Your task to perform on an android device: Empty the shopping cart on costco. Image 0: 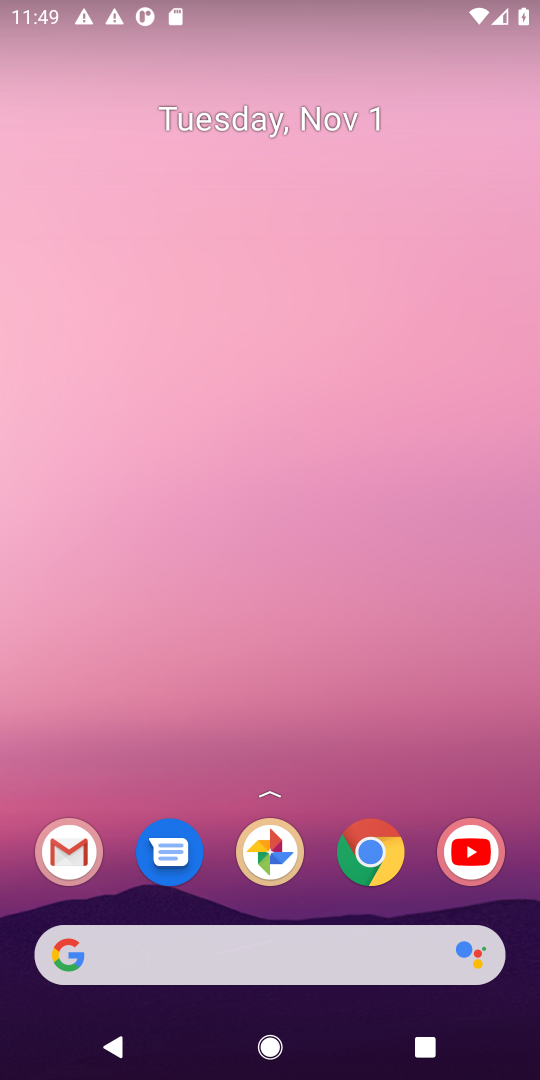
Step 0: click (73, 941)
Your task to perform on an android device: Empty the shopping cart on costco. Image 1: 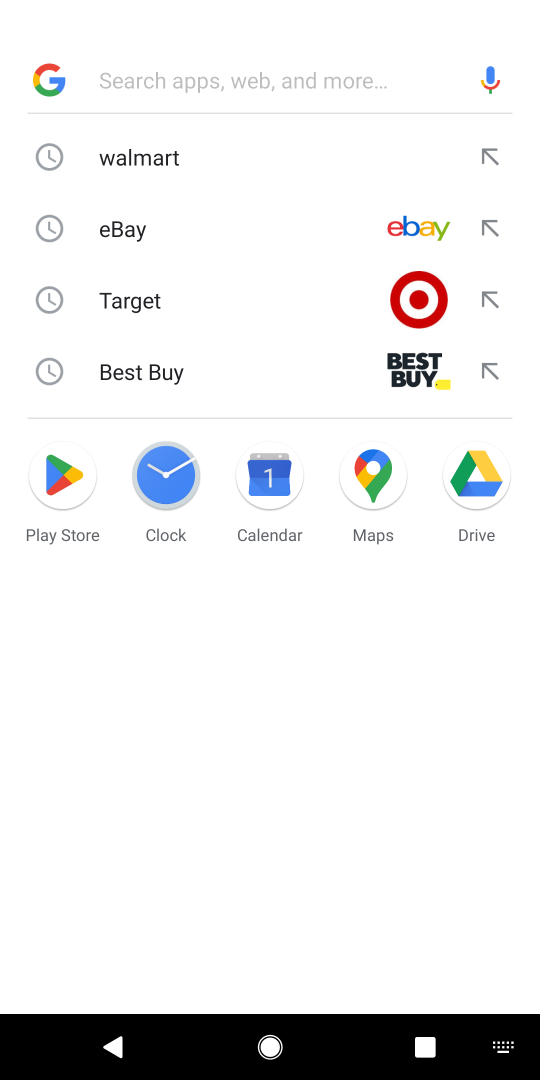
Step 1: type "costco."
Your task to perform on an android device: Empty the shopping cart on costco. Image 2: 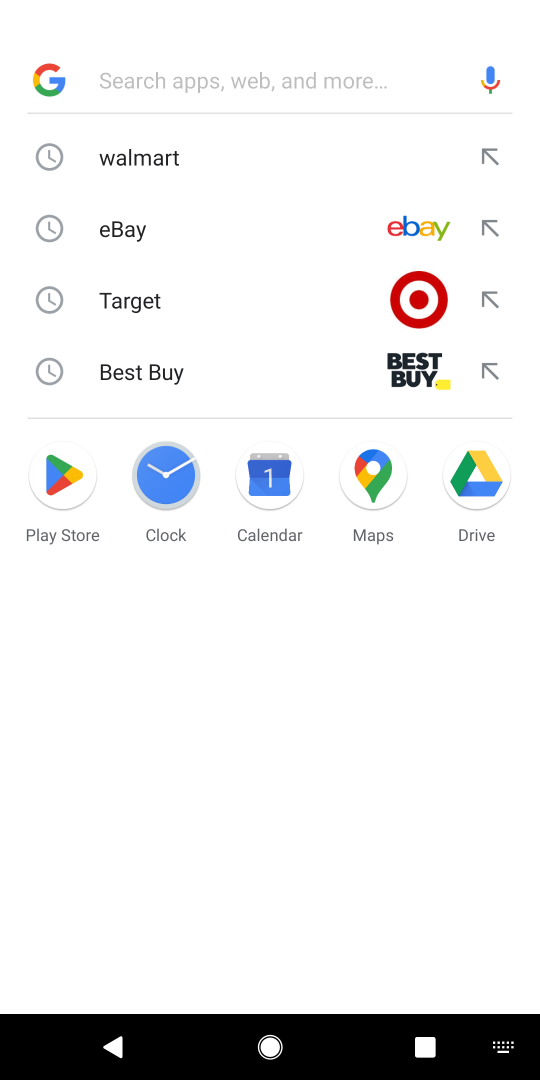
Step 2: click (124, 76)
Your task to perform on an android device: Empty the shopping cart on costco. Image 3: 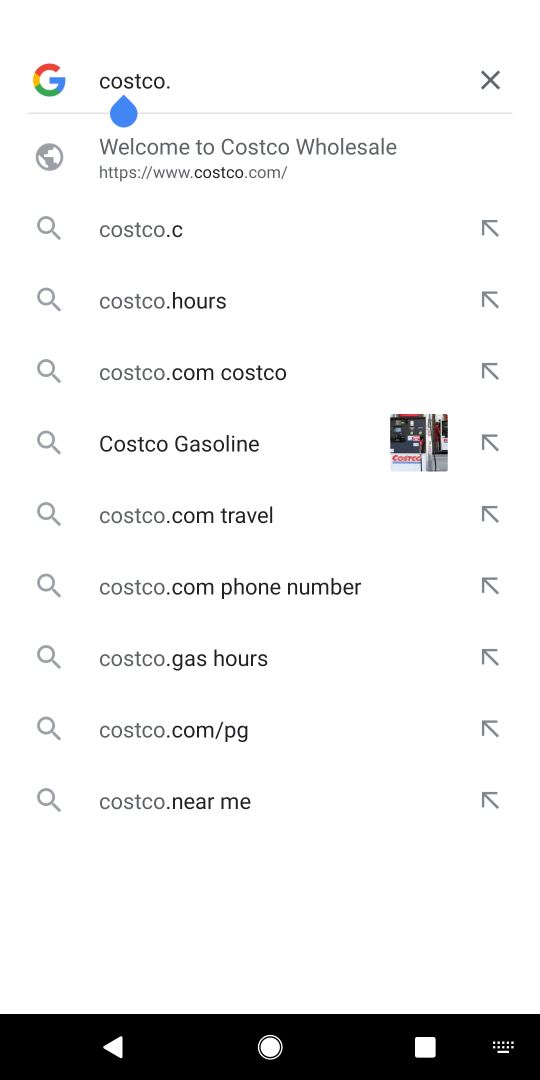
Step 3: press enter
Your task to perform on an android device: Empty the shopping cart on costco. Image 4: 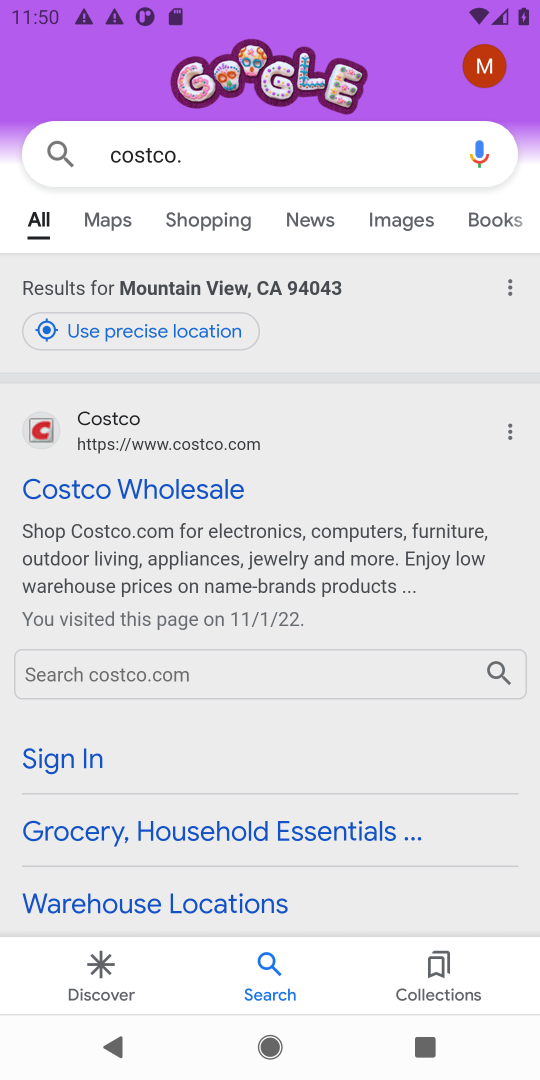
Step 4: click (92, 495)
Your task to perform on an android device: Empty the shopping cart on costco. Image 5: 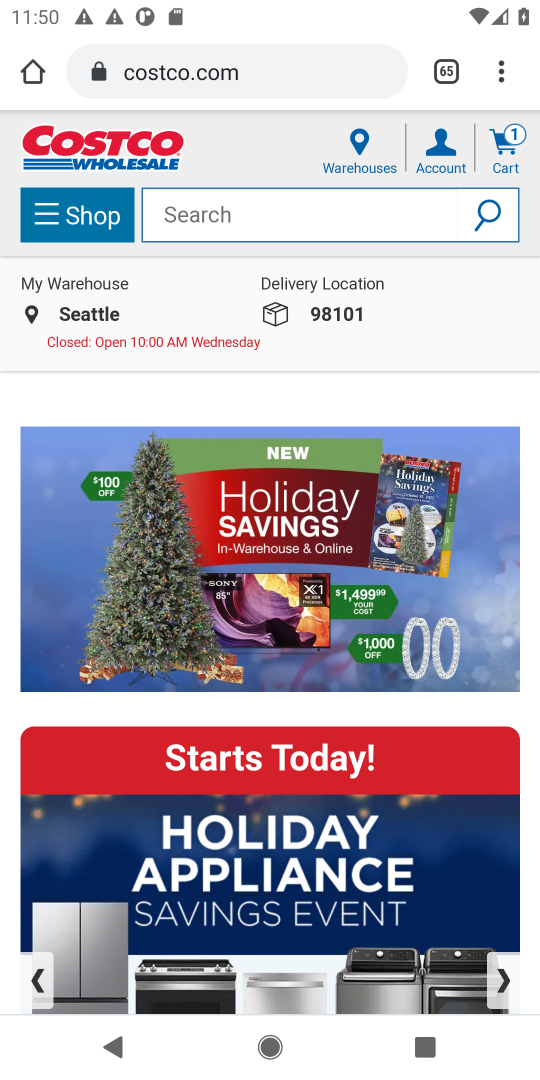
Step 5: click (497, 140)
Your task to perform on an android device: Empty the shopping cart on costco. Image 6: 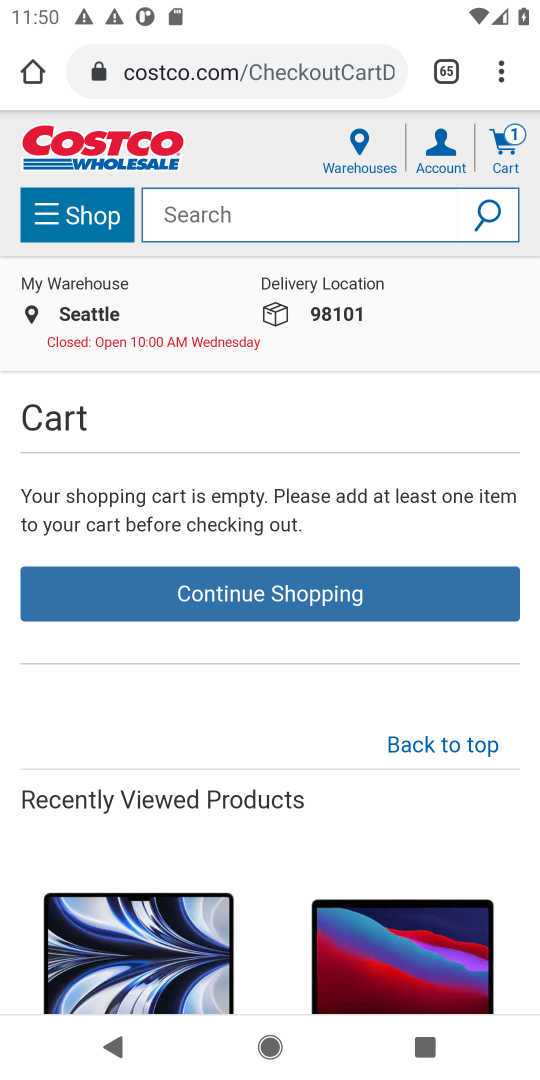
Step 6: task complete